Your task to perform on an android device: What is the news today? Image 0: 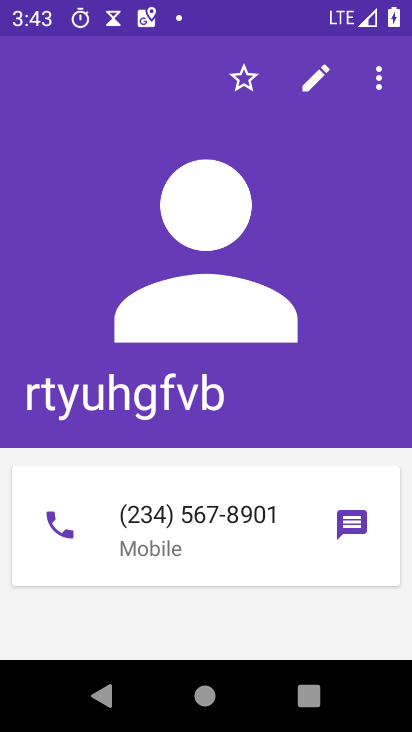
Step 0: press home button
Your task to perform on an android device: What is the news today? Image 1: 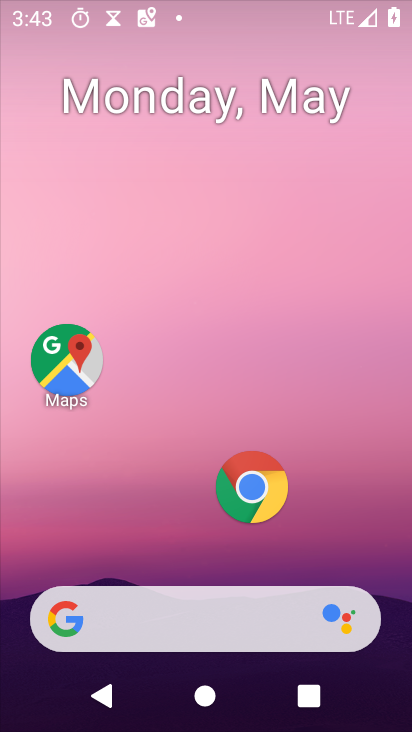
Step 1: click (123, 587)
Your task to perform on an android device: What is the news today? Image 2: 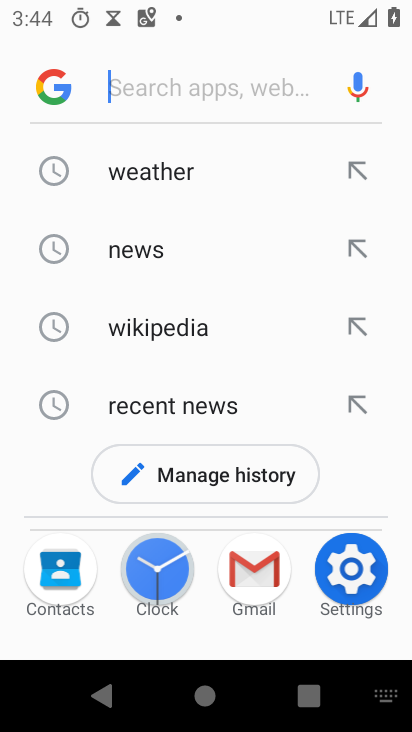
Step 2: type "what is the news today"
Your task to perform on an android device: What is the news today? Image 3: 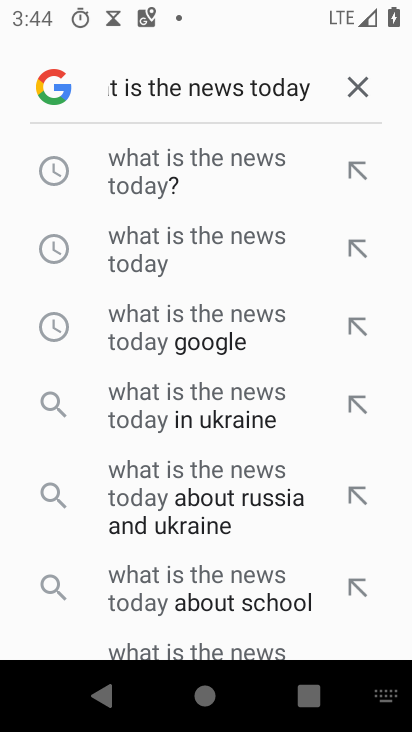
Step 3: click (157, 163)
Your task to perform on an android device: What is the news today? Image 4: 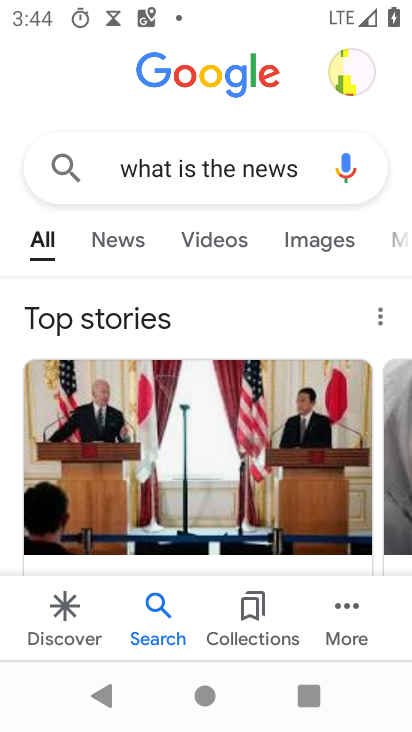
Step 4: click (108, 250)
Your task to perform on an android device: What is the news today? Image 5: 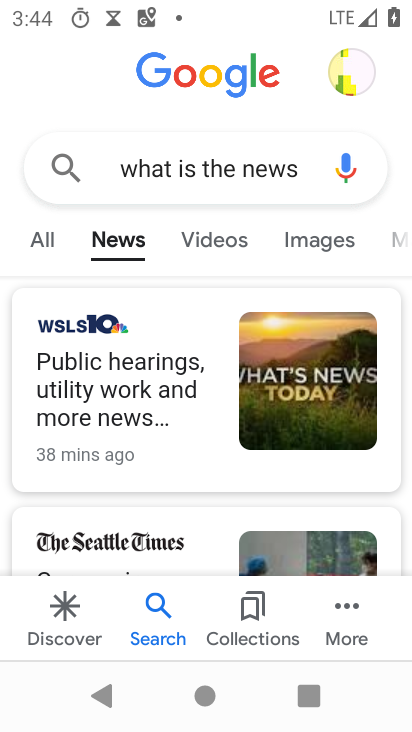
Step 5: task complete